Your task to perform on an android device: change timer sound Image 0: 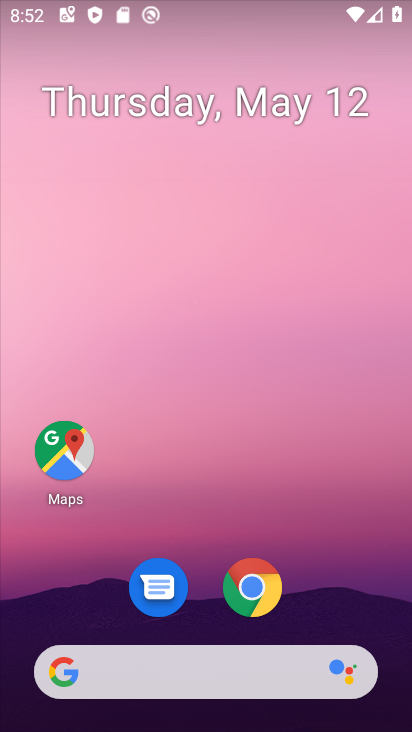
Step 0: drag from (340, 540) to (329, 255)
Your task to perform on an android device: change timer sound Image 1: 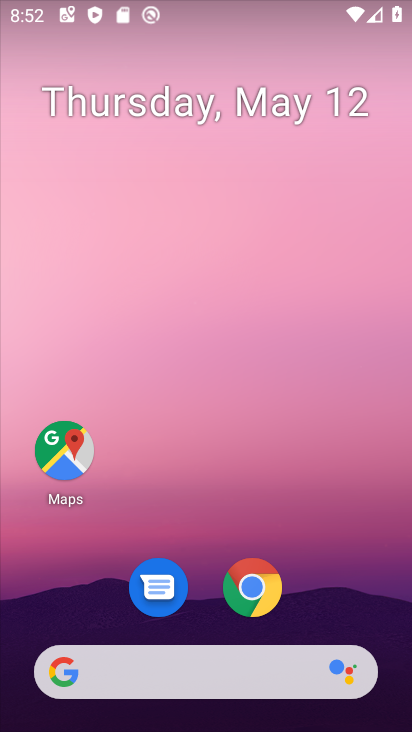
Step 1: drag from (321, 398) to (326, 311)
Your task to perform on an android device: change timer sound Image 2: 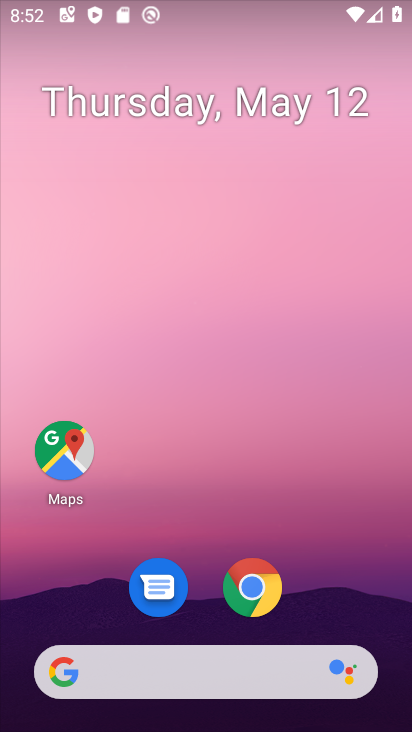
Step 2: drag from (222, 619) to (262, 165)
Your task to perform on an android device: change timer sound Image 3: 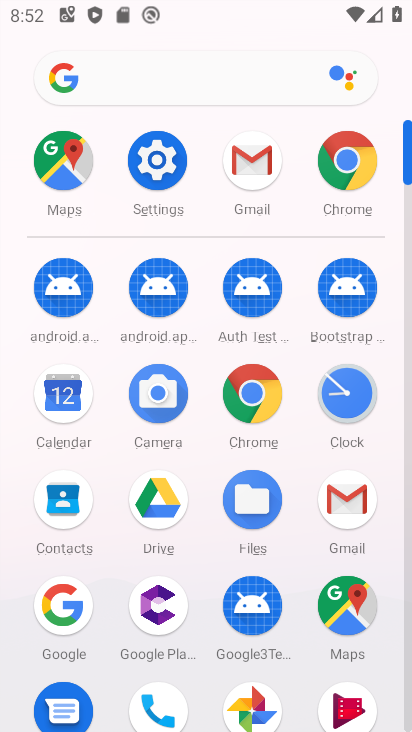
Step 3: click (340, 393)
Your task to perform on an android device: change timer sound Image 4: 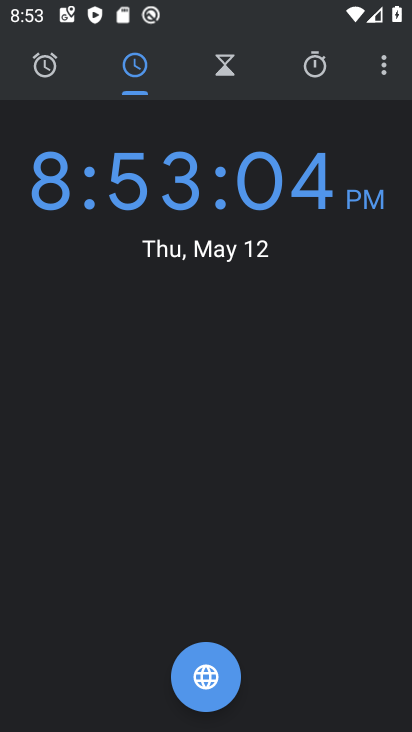
Step 4: click (371, 59)
Your task to perform on an android device: change timer sound Image 5: 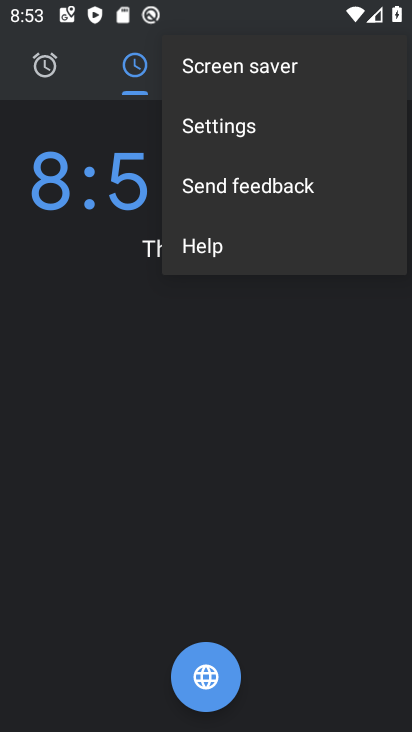
Step 5: click (246, 132)
Your task to perform on an android device: change timer sound Image 6: 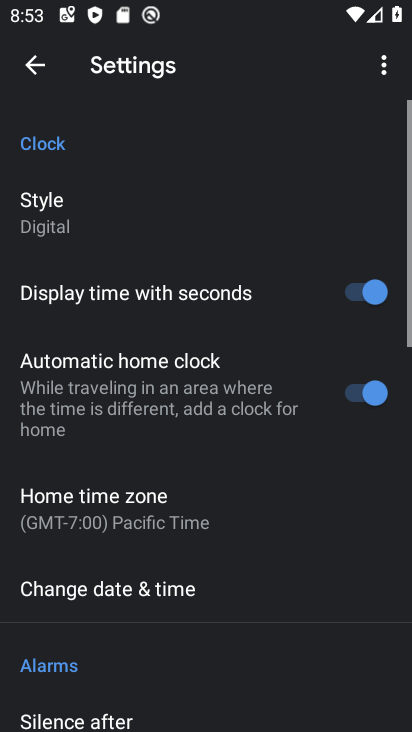
Step 6: drag from (228, 610) to (239, 237)
Your task to perform on an android device: change timer sound Image 7: 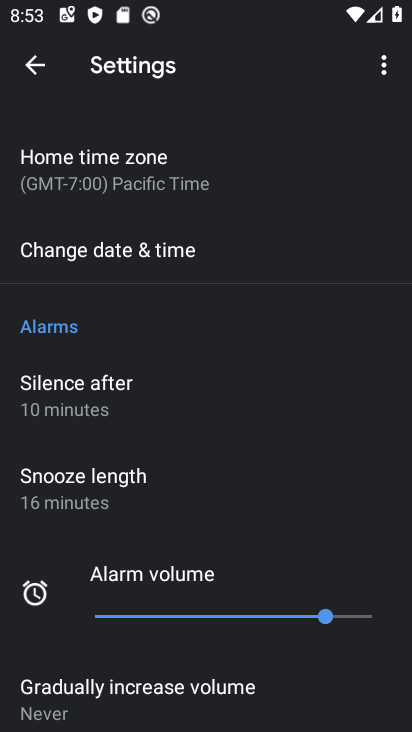
Step 7: drag from (187, 606) to (230, 196)
Your task to perform on an android device: change timer sound Image 8: 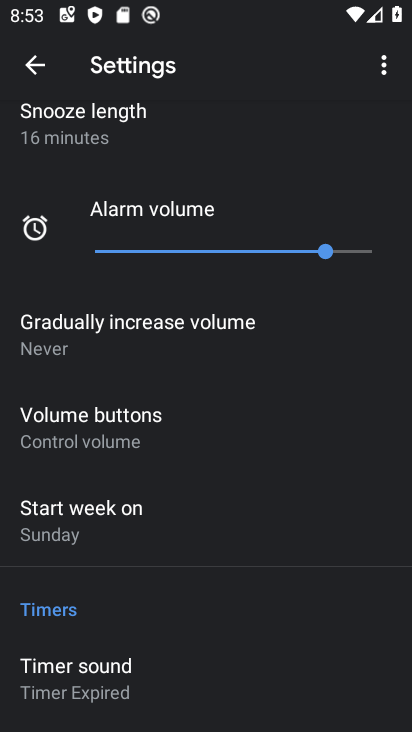
Step 8: drag from (223, 210) to (166, 617)
Your task to perform on an android device: change timer sound Image 9: 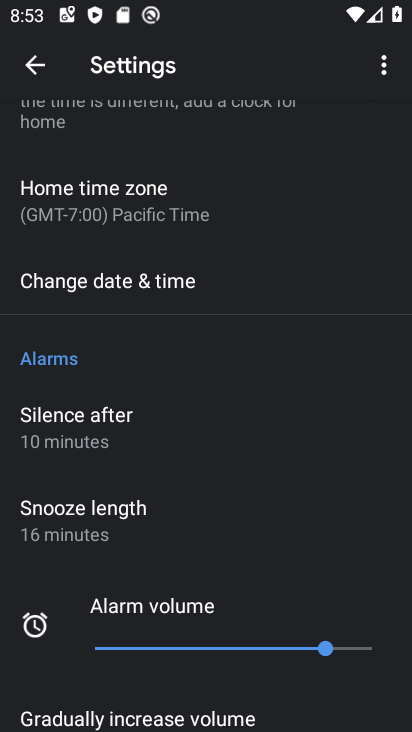
Step 9: drag from (282, 213) to (252, 290)
Your task to perform on an android device: change timer sound Image 10: 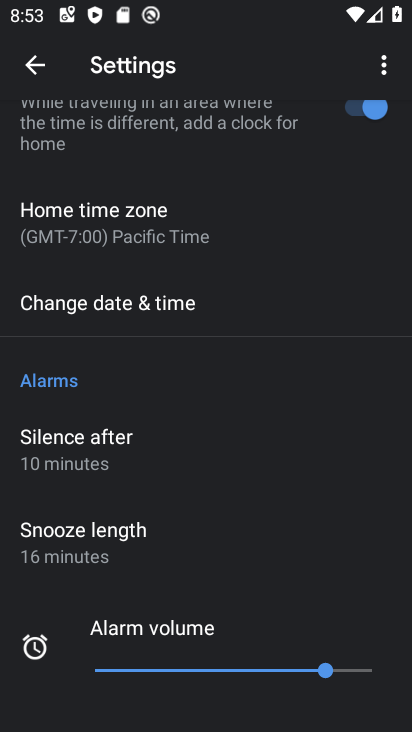
Step 10: drag from (213, 648) to (244, 273)
Your task to perform on an android device: change timer sound Image 11: 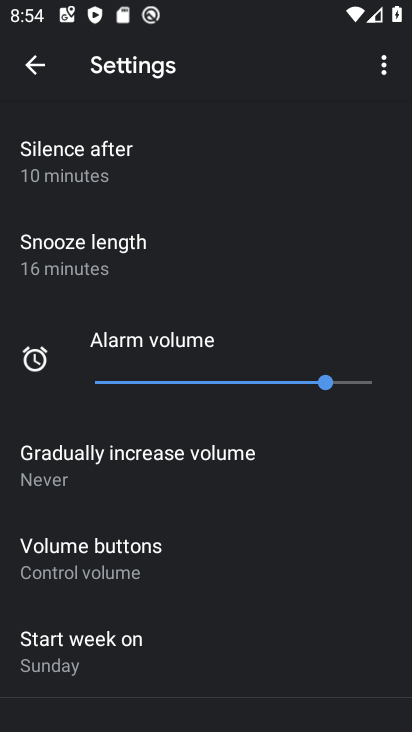
Step 11: drag from (158, 502) to (177, 251)
Your task to perform on an android device: change timer sound Image 12: 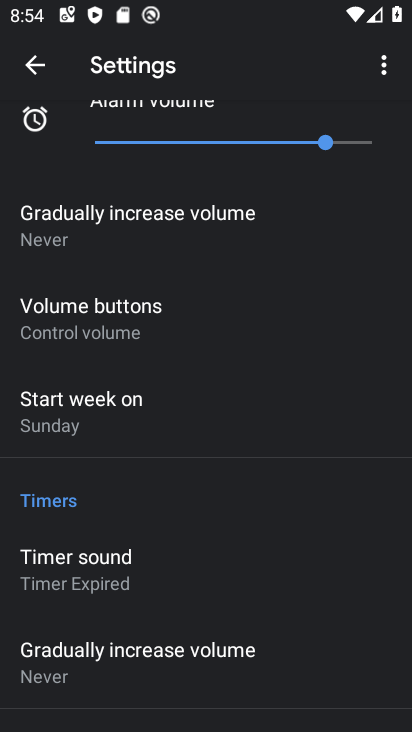
Step 12: click (136, 579)
Your task to perform on an android device: change timer sound Image 13: 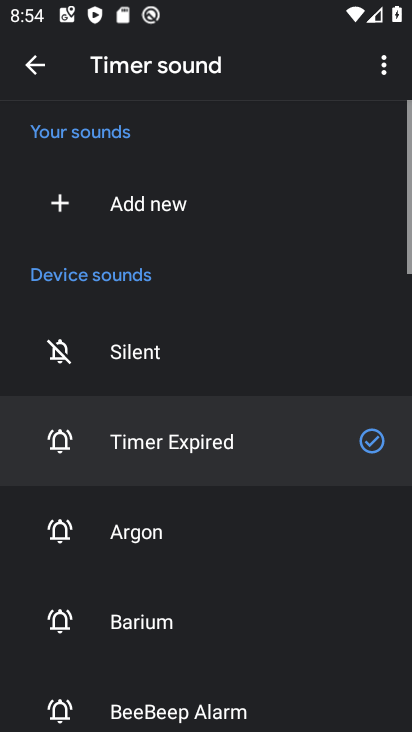
Step 13: click (159, 522)
Your task to perform on an android device: change timer sound Image 14: 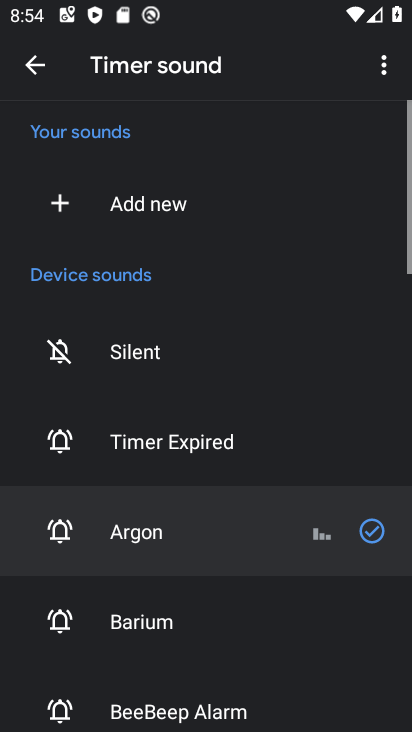
Step 14: task complete